Your task to perform on an android device: When is my next appointment? Image 0: 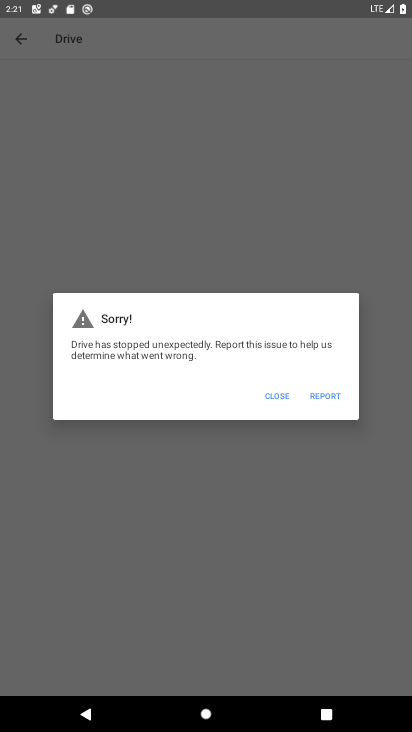
Step 0: press home button
Your task to perform on an android device: When is my next appointment? Image 1: 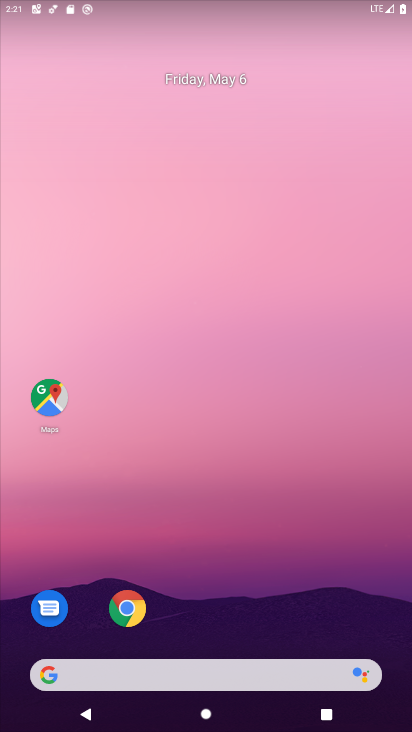
Step 1: drag from (232, 603) to (259, 11)
Your task to perform on an android device: When is my next appointment? Image 2: 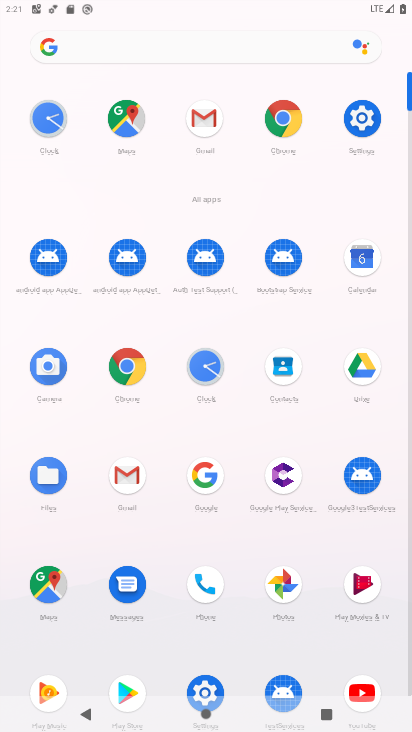
Step 2: click (372, 267)
Your task to perform on an android device: When is my next appointment? Image 3: 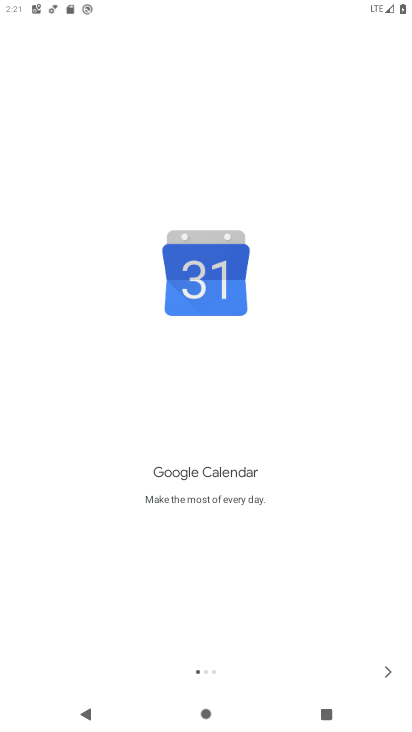
Step 3: click (374, 681)
Your task to perform on an android device: When is my next appointment? Image 4: 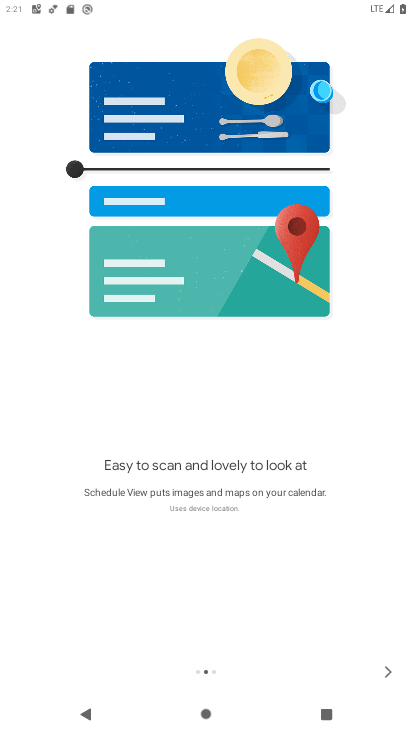
Step 4: click (384, 669)
Your task to perform on an android device: When is my next appointment? Image 5: 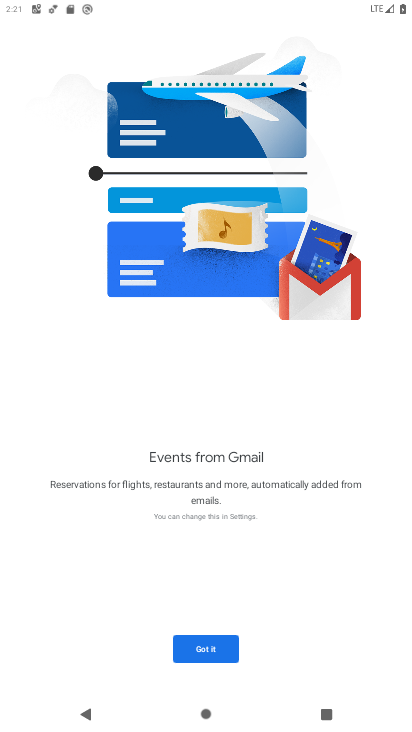
Step 5: click (384, 669)
Your task to perform on an android device: When is my next appointment? Image 6: 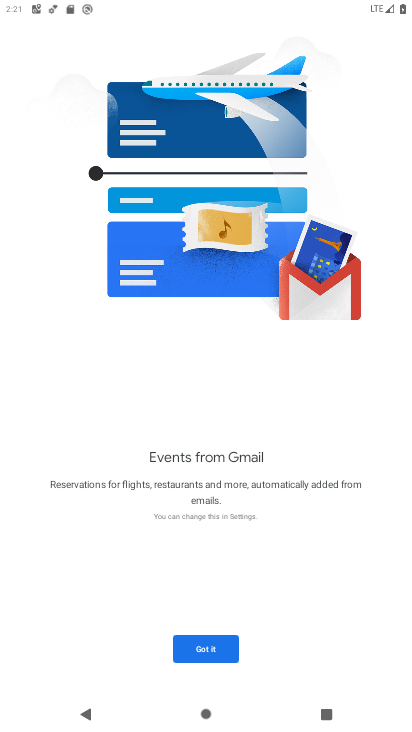
Step 6: click (230, 646)
Your task to perform on an android device: When is my next appointment? Image 7: 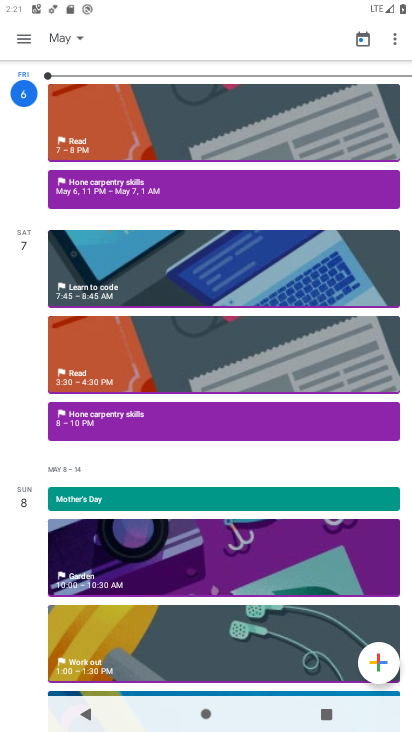
Step 7: click (26, 46)
Your task to perform on an android device: When is my next appointment? Image 8: 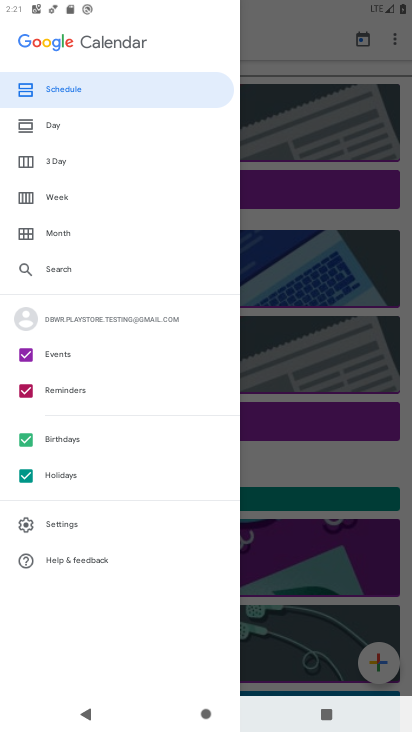
Step 8: drag from (310, 269) to (151, 267)
Your task to perform on an android device: When is my next appointment? Image 9: 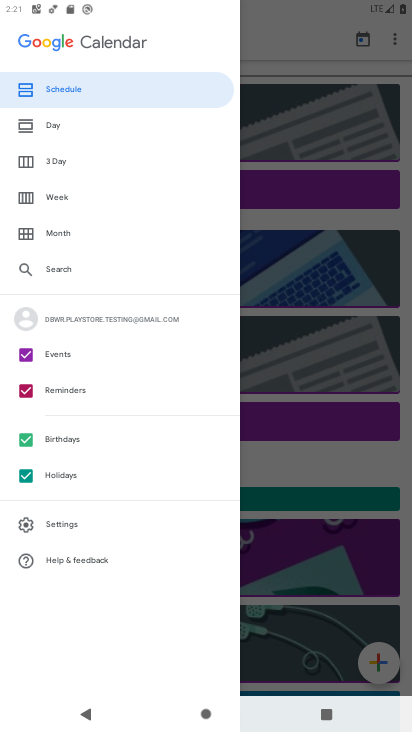
Step 9: drag from (321, 458) to (336, 122)
Your task to perform on an android device: When is my next appointment? Image 10: 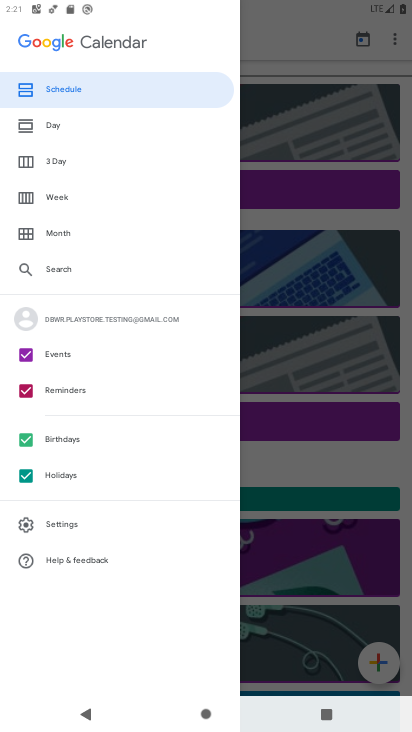
Step 10: click (273, 40)
Your task to perform on an android device: When is my next appointment? Image 11: 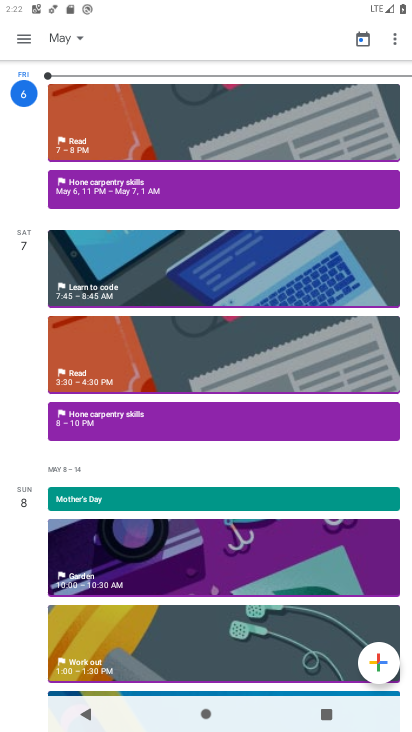
Step 11: drag from (145, 525) to (192, 315)
Your task to perform on an android device: When is my next appointment? Image 12: 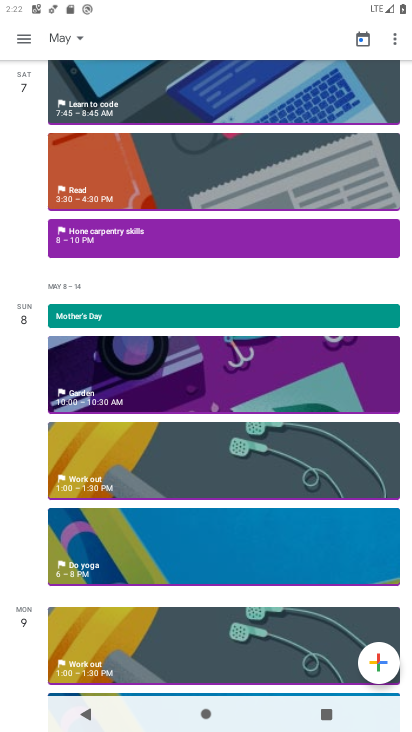
Step 12: drag from (207, 563) to (232, 221)
Your task to perform on an android device: When is my next appointment? Image 13: 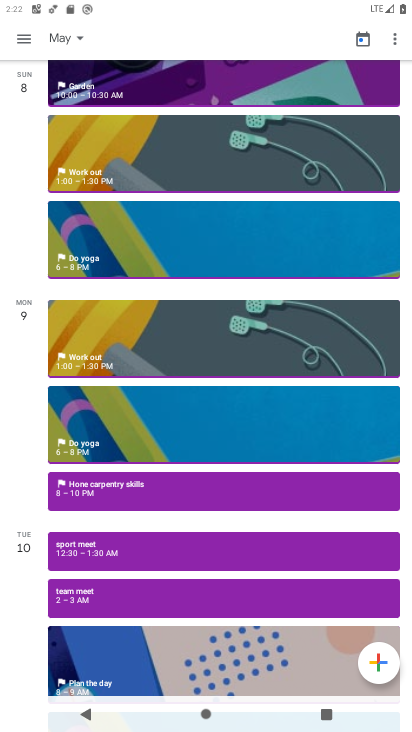
Step 13: drag from (234, 461) to (254, 347)
Your task to perform on an android device: When is my next appointment? Image 14: 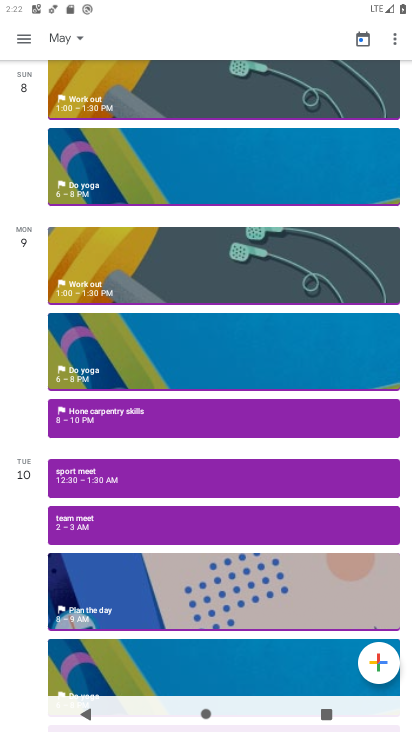
Step 14: click (154, 522)
Your task to perform on an android device: When is my next appointment? Image 15: 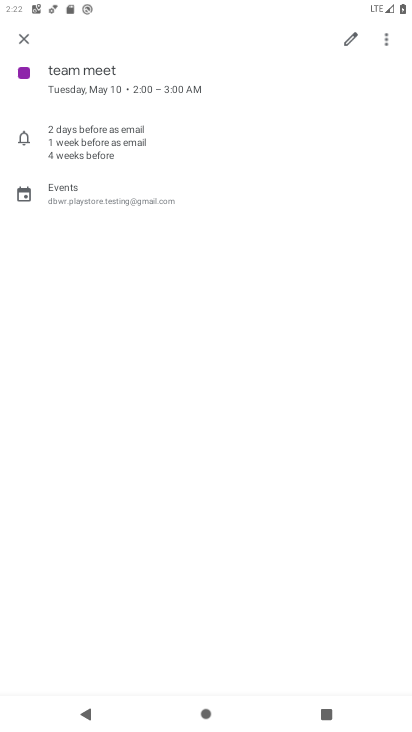
Step 15: task complete